Your task to perform on an android device: uninstall "Duolingo: language lessons" Image 0: 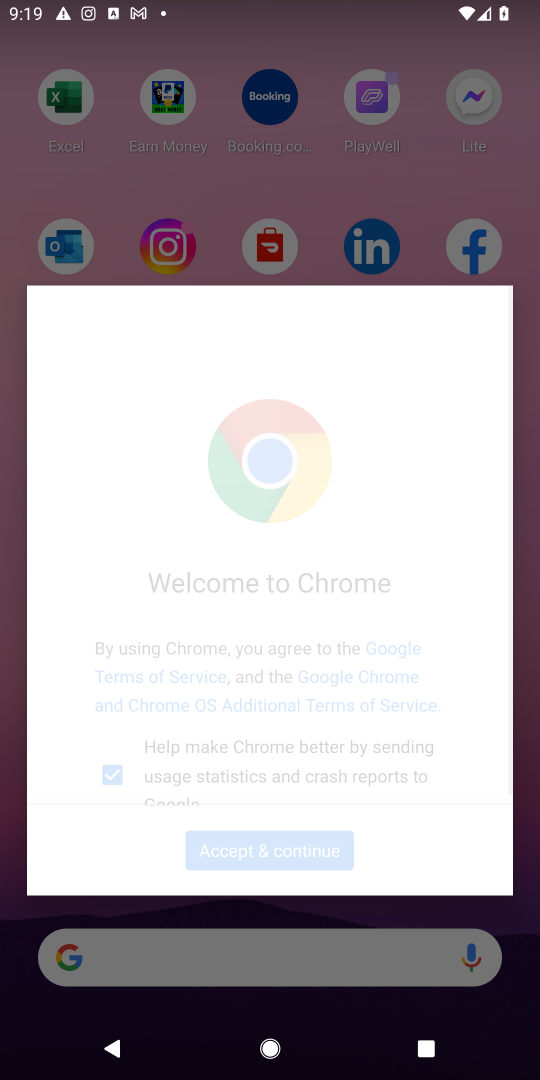
Step 0: press home button
Your task to perform on an android device: uninstall "Duolingo: language lessons" Image 1: 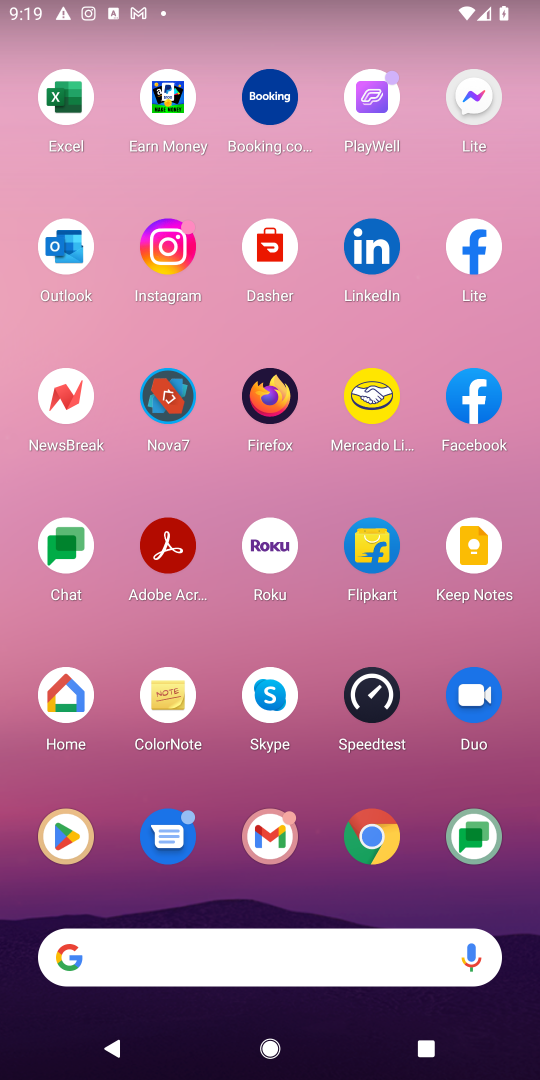
Step 1: press home button
Your task to perform on an android device: uninstall "Duolingo: language lessons" Image 2: 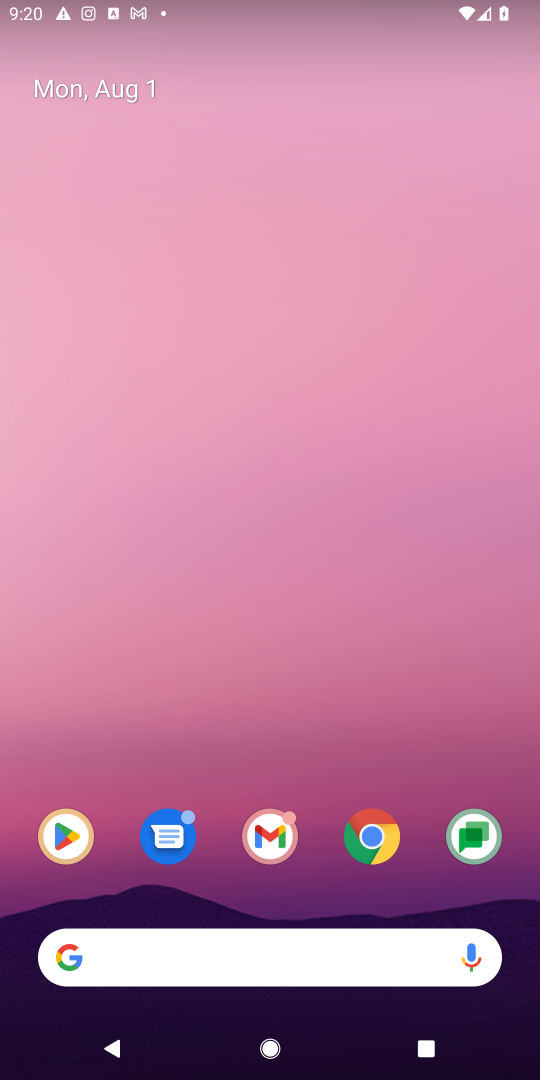
Step 2: click (72, 837)
Your task to perform on an android device: uninstall "Duolingo: language lessons" Image 3: 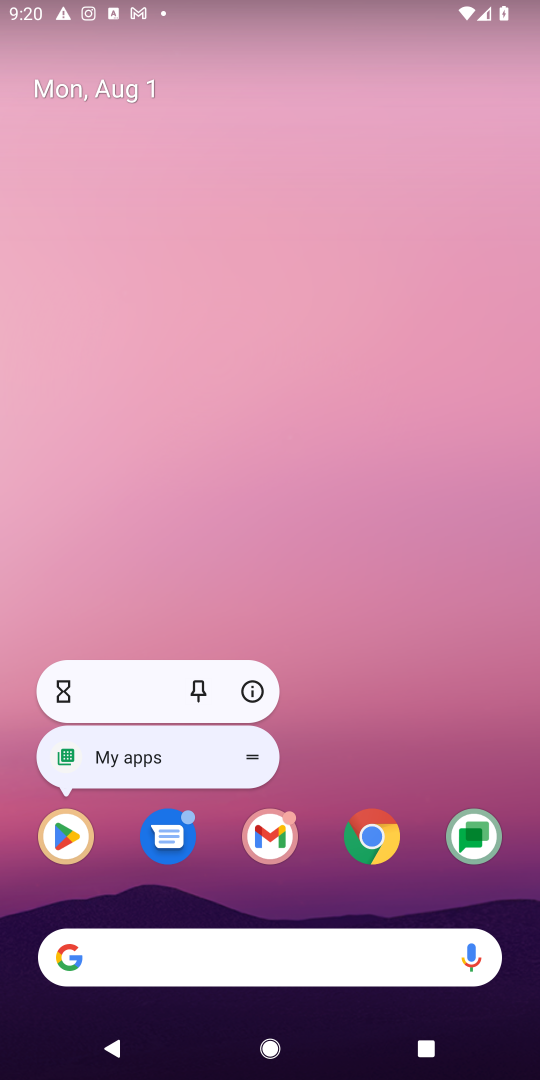
Step 3: click (66, 844)
Your task to perform on an android device: uninstall "Duolingo: language lessons" Image 4: 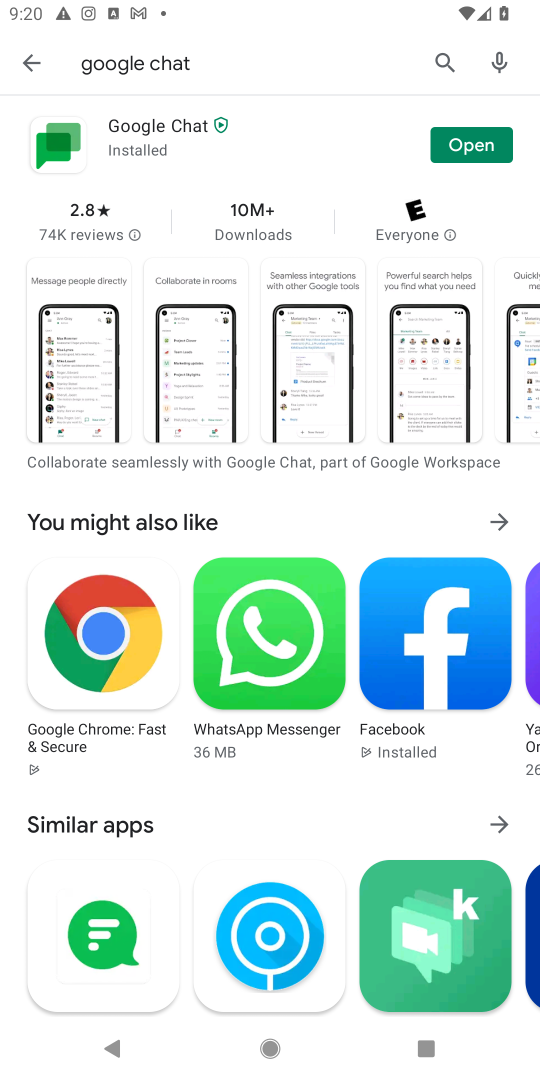
Step 4: click (439, 59)
Your task to perform on an android device: uninstall "Duolingo: language lessons" Image 5: 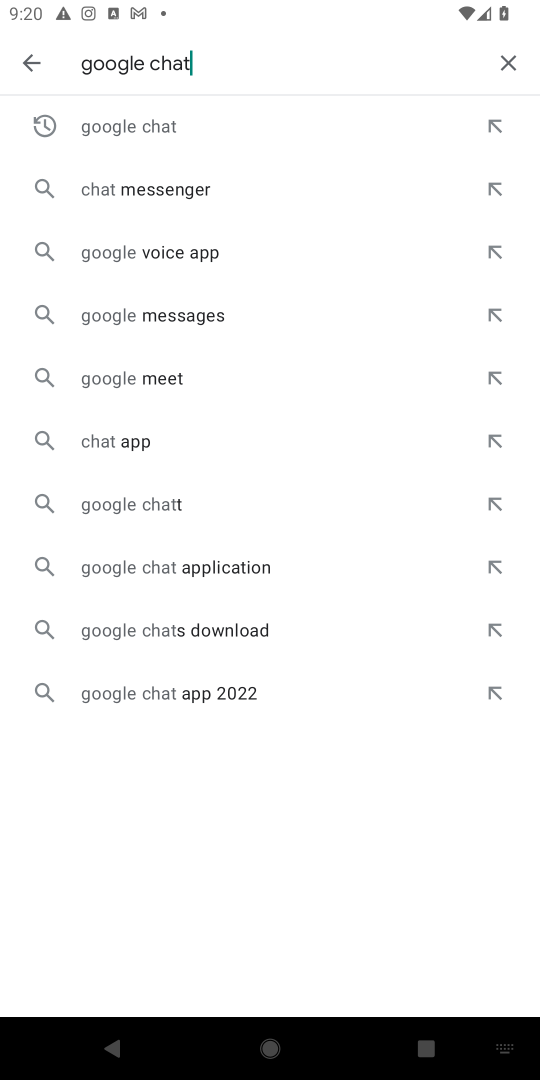
Step 5: click (502, 56)
Your task to perform on an android device: uninstall "Duolingo: language lessons" Image 6: 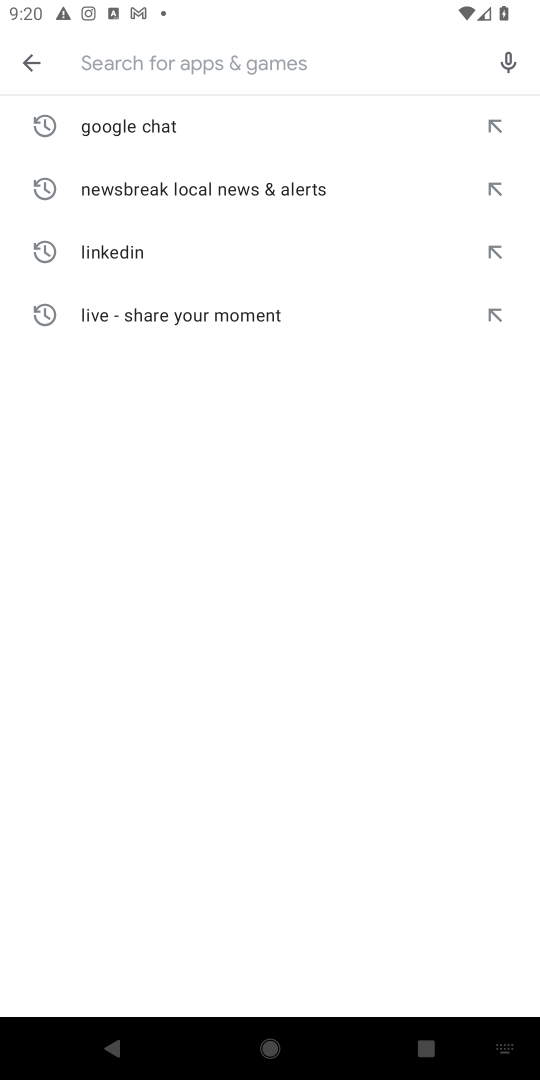
Step 6: type "Duolingo: language lessons"
Your task to perform on an android device: uninstall "Duolingo: language lessons" Image 7: 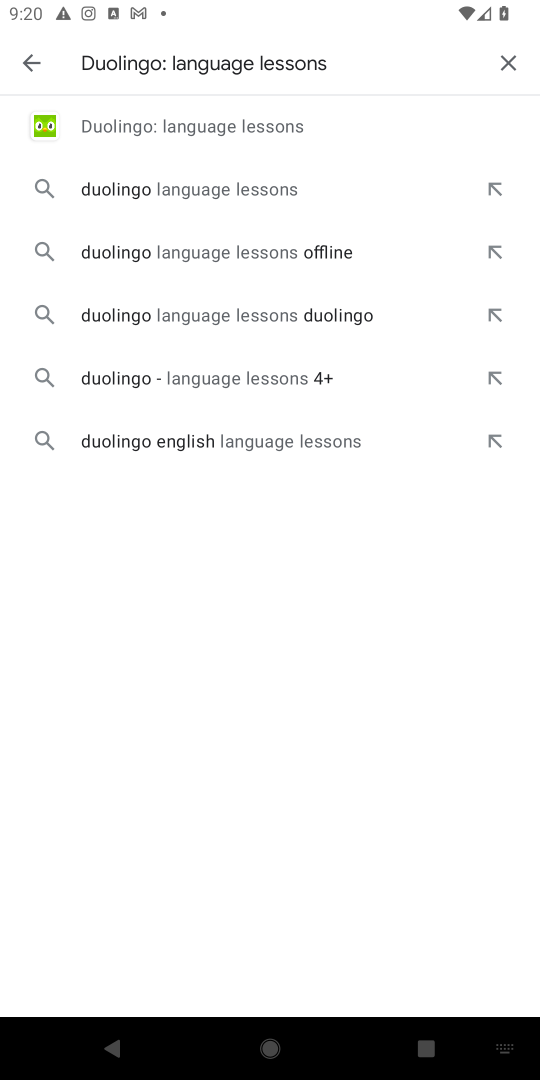
Step 7: click (276, 121)
Your task to perform on an android device: uninstall "Duolingo: language lessons" Image 8: 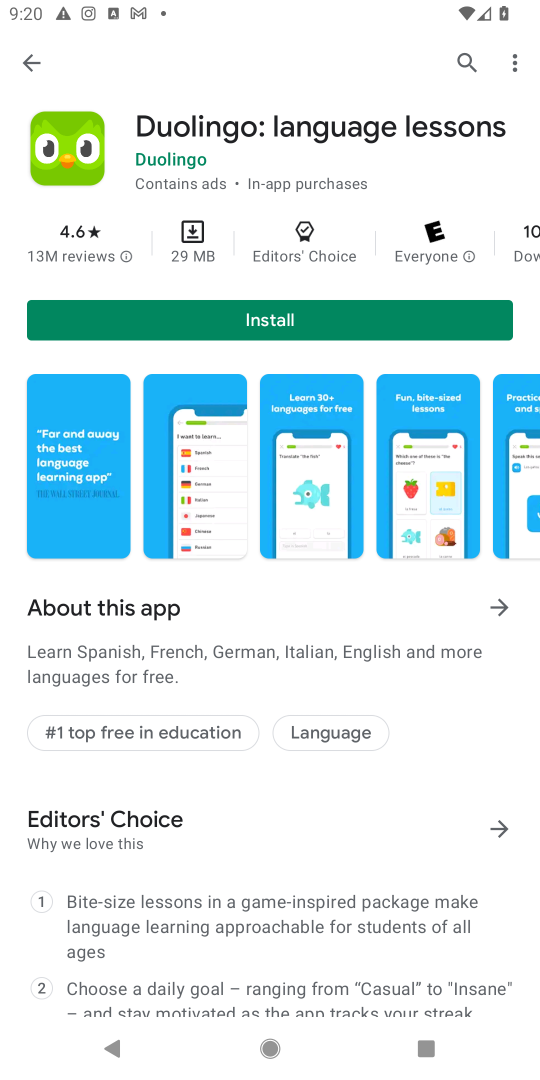
Step 8: task complete